Your task to perform on an android device: Go to notification settings Image 0: 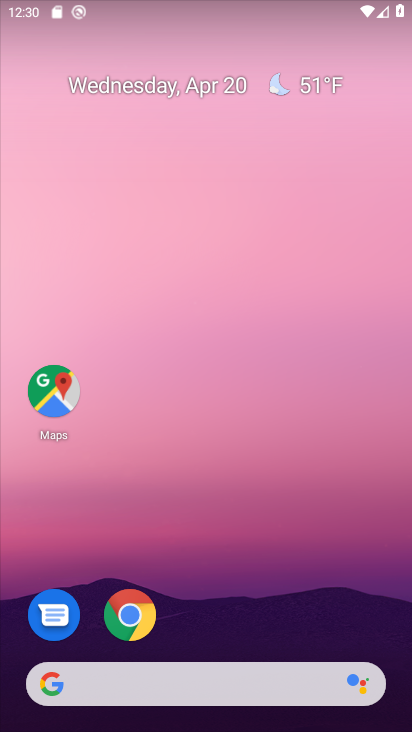
Step 0: drag from (170, 680) to (202, 96)
Your task to perform on an android device: Go to notification settings Image 1: 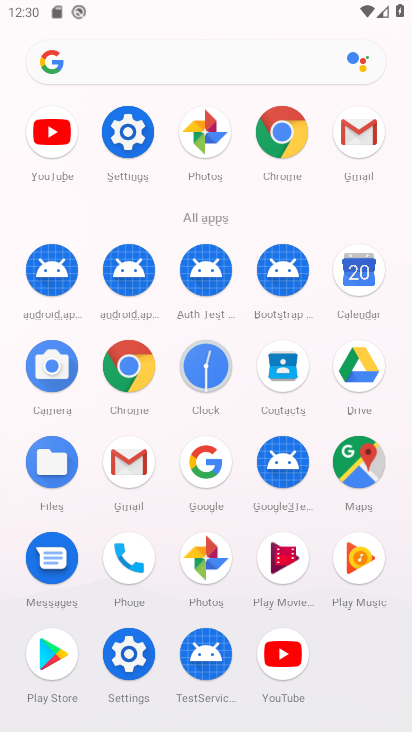
Step 1: click (125, 665)
Your task to perform on an android device: Go to notification settings Image 2: 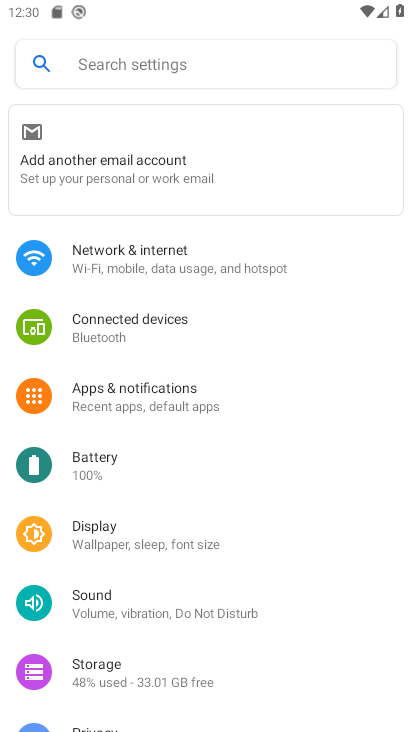
Step 2: click (129, 387)
Your task to perform on an android device: Go to notification settings Image 3: 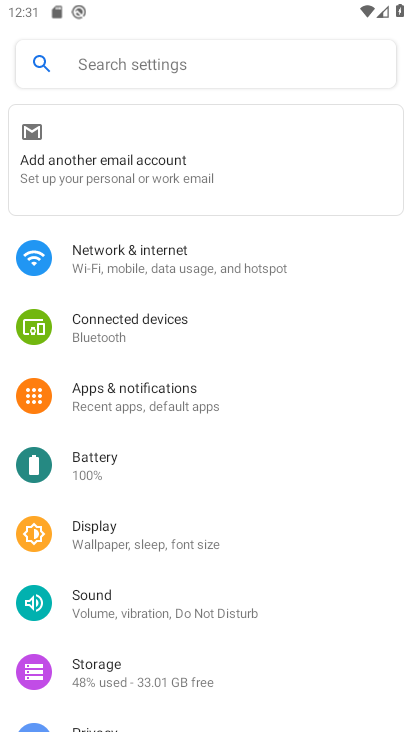
Step 3: task complete